Your task to perform on an android device: Open display settings Image 0: 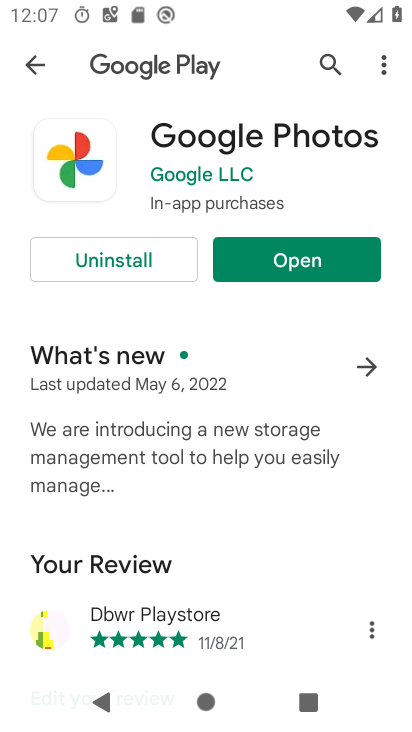
Step 0: press home button
Your task to perform on an android device: Open display settings Image 1: 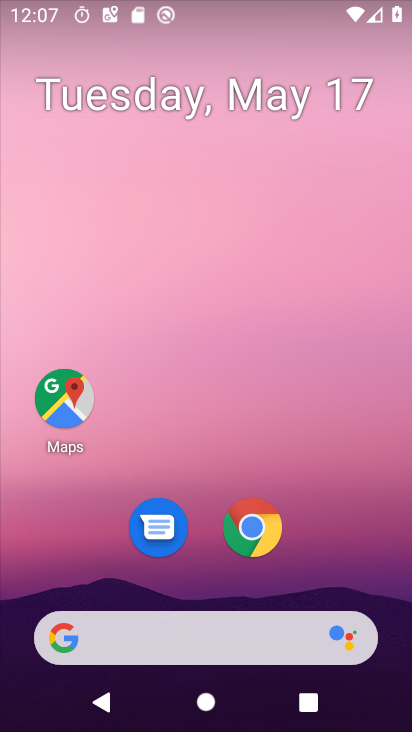
Step 1: drag from (349, 530) to (356, 134)
Your task to perform on an android device: Open display settings Image 2: 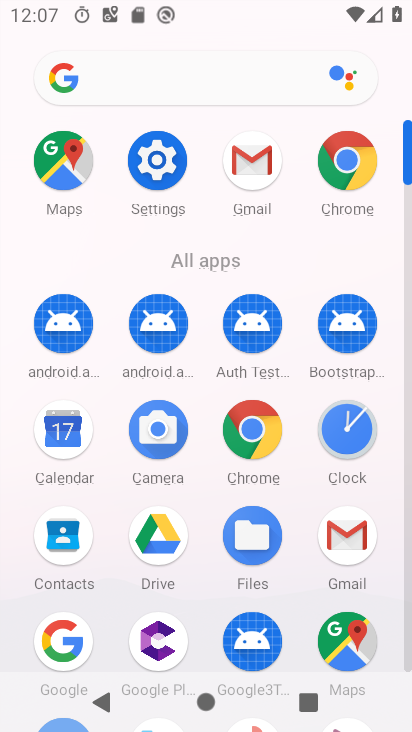
Step 2: click (137, 170)
Your task to perform on an android device: Open display settings Image 3: 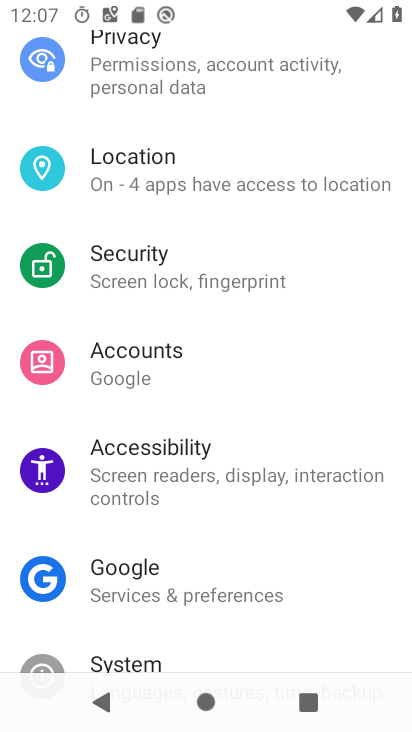
Step 3: drag from (147, 271) to (139, 603)
Your task to perform on an android device: Open display settings Image 4: 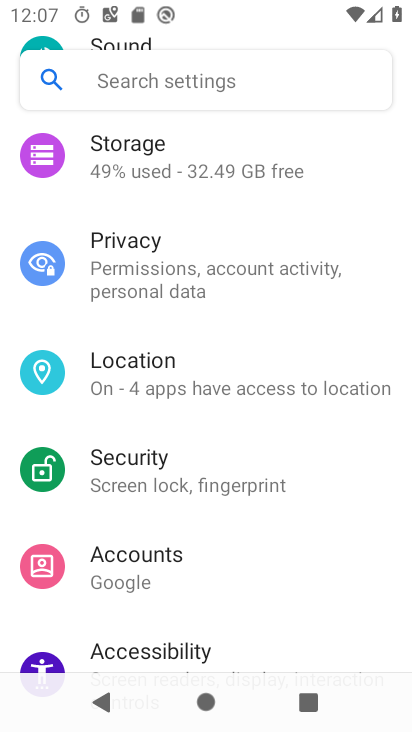
Step 4: drag from (170, 210) to (170, 596)
Your task to perform on an android device: Open display settings Image 5: 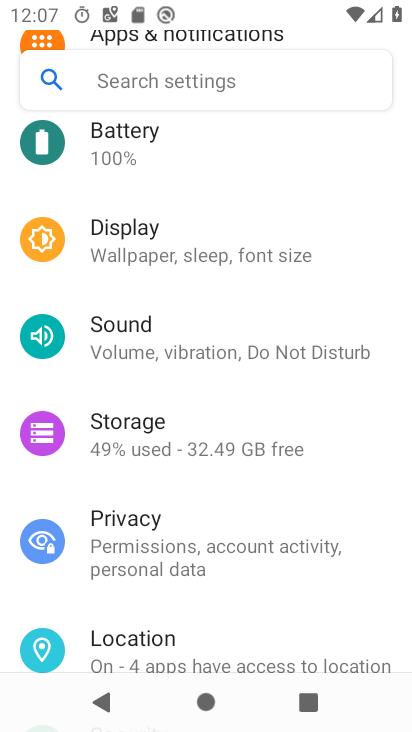
Step 5: click (166, 252)
Your task to perform on an android device: Open display settings Image 6: 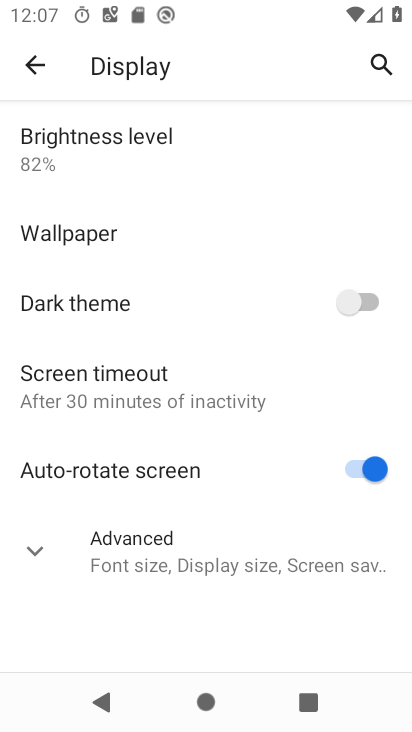
Step 6: task complete